Your task to perform on an android device: Open Yahoo.com Image 0: 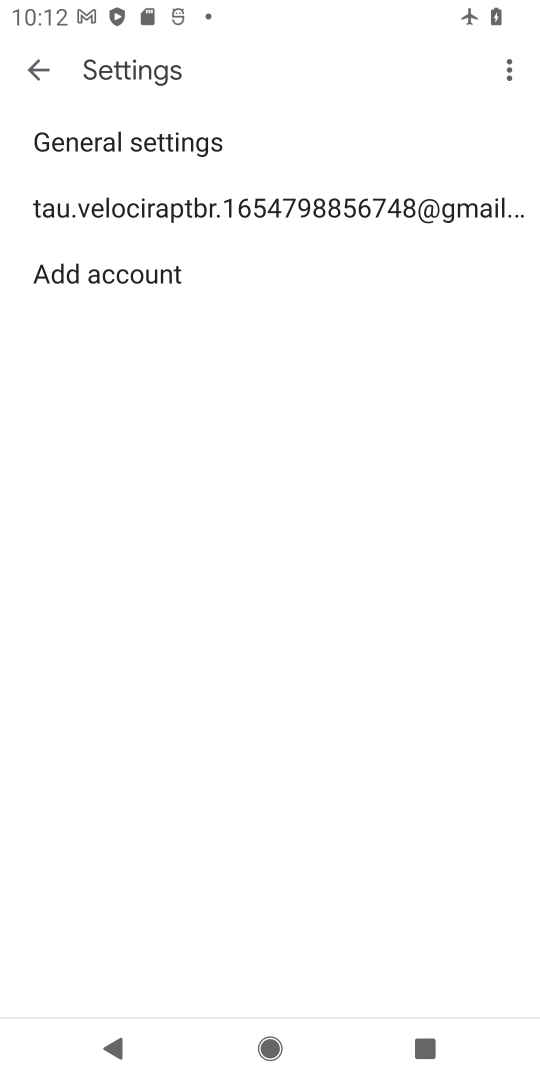
Step 0: press home button
Your task to perform on an android device: Open Yahoo.com Image 1: 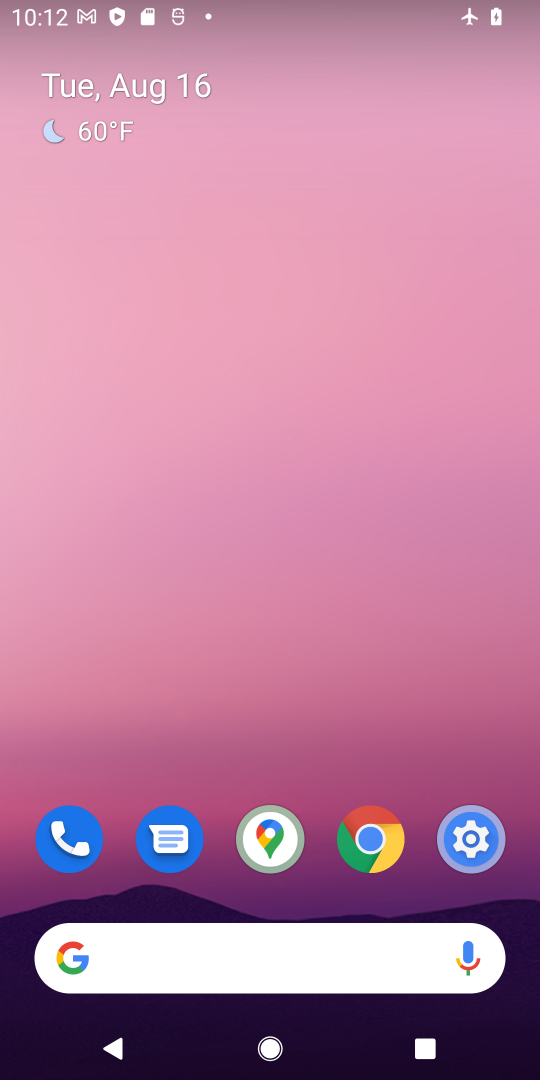
Step 1: click (370, 845)
Your task to perform on an android device: Open Yahoo.com Image 2: 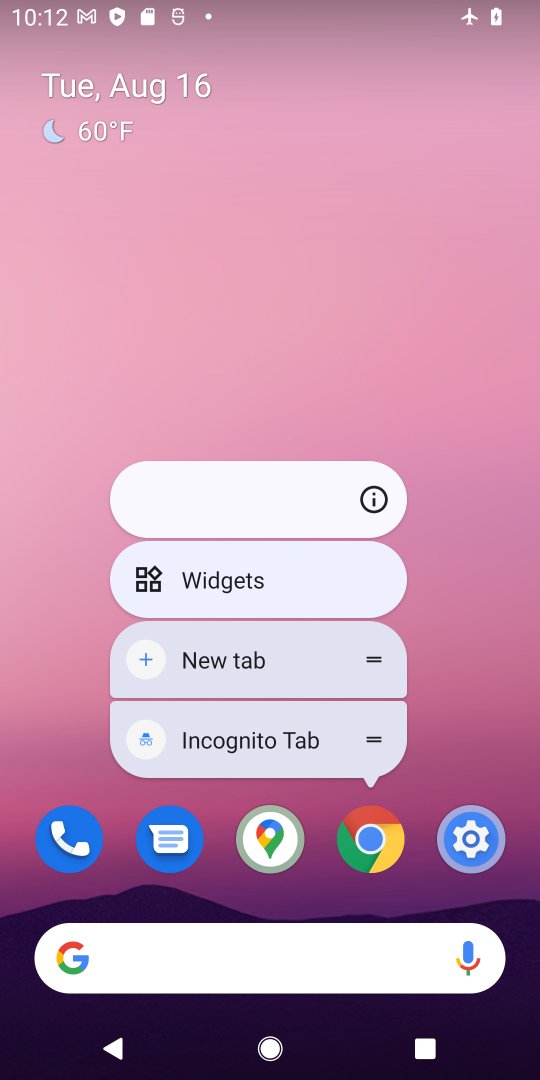
Step 2: click (374, 845)
Your task to perform on an android device: Open Yahoo.com Image 3: 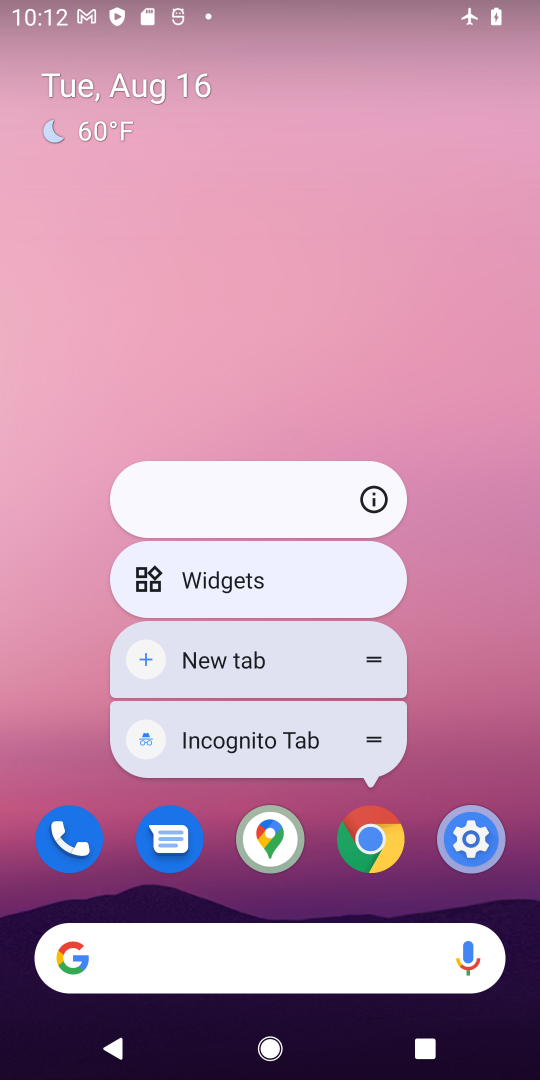
Step 3: click (369, 818)
Your task to perform on an android device: Open Yahoo.com Image 4: 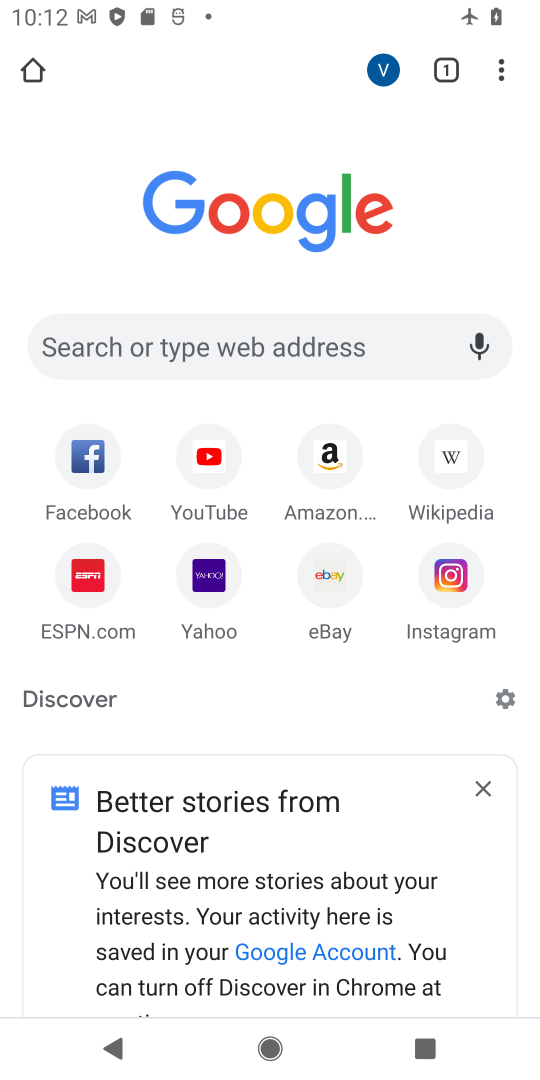
Step 4: click (191, 610)
Your task to perform on an android device: Open Yahoo.com Image 5: 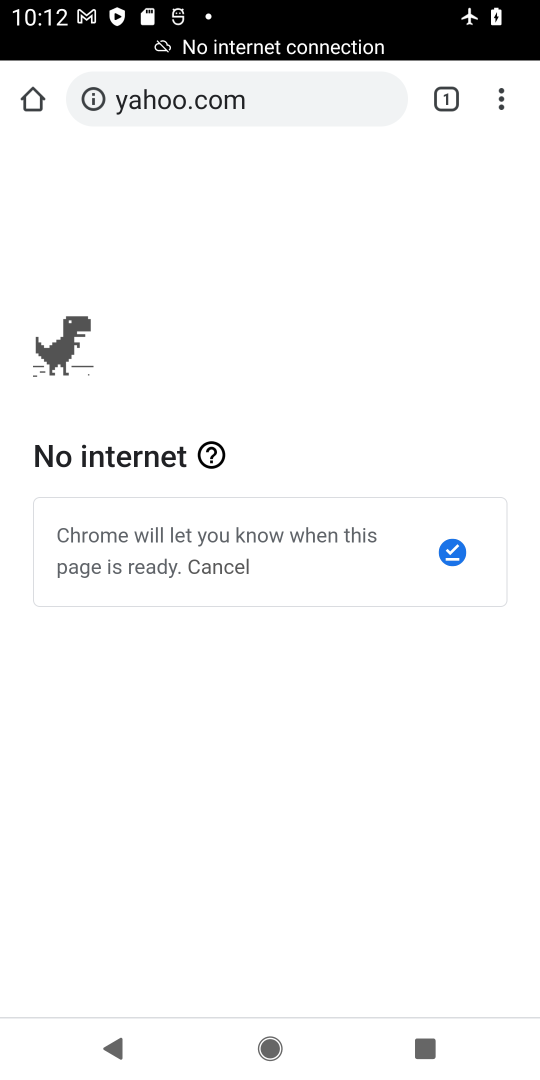
Step 5: task complete